Your task to perform on an android device: see sites visited before in the chrome app Image 0: 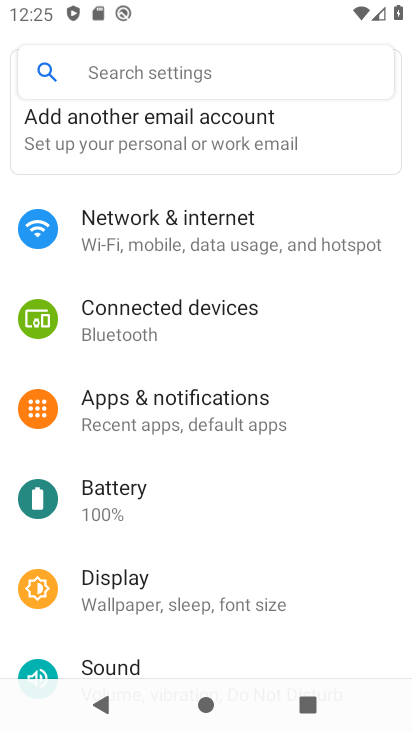
Step 0: press home button
Your task to perform on an android device: see sites visited before in the chrome app Image 1: 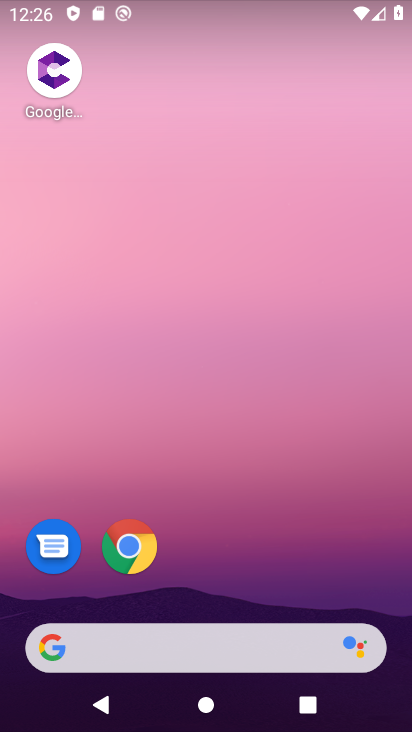
Step 1: drag from (296, 642) to (318, 271)
Your task to perform on an android device: see sites visited before in the chrome app Image 2: 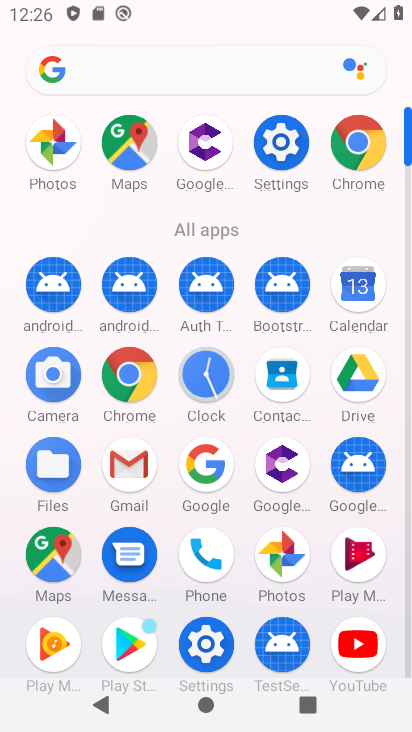
Step 2: click (364, 180)
Your task to perform on an android device: see sites visited before in the chrome app Image 3: 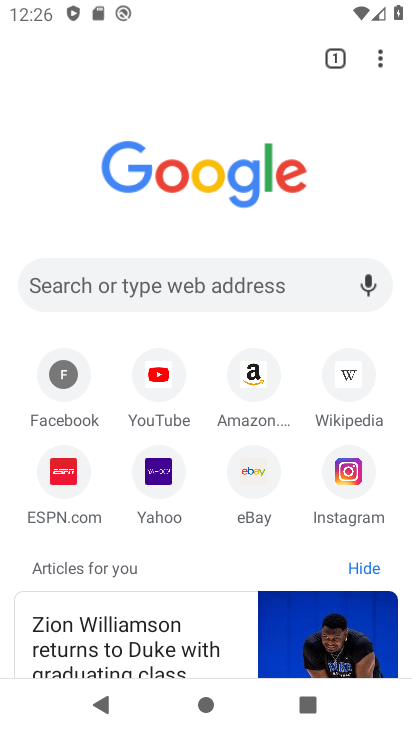
Step 3: click (380, 62)
Your task to perform on an android device: see sites visited before in the chrome app Image 4: 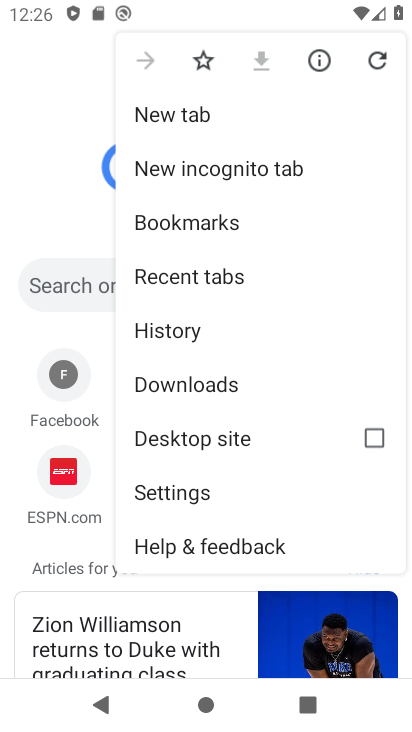
Step 4: click (213, 324)
Your task to perform on an android device: see sites visited before in the chrome app Image 5: 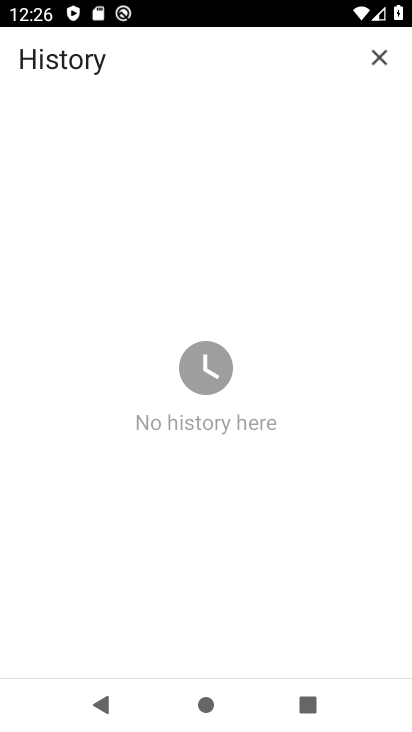
Step 5: task complete